Your task to perform on an android device: Open eBay Image 0: 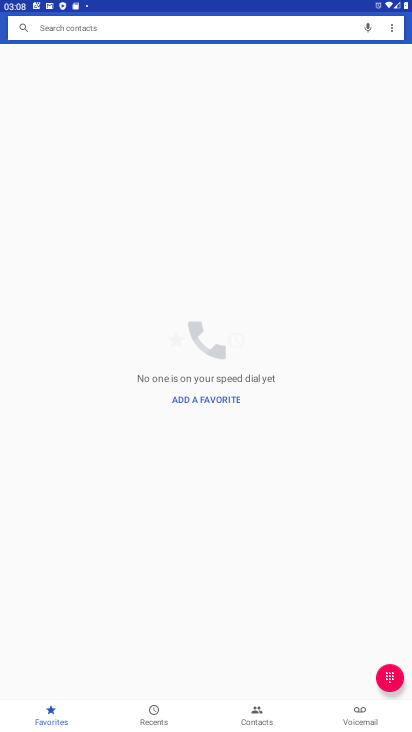
Step 0: press home button
Your task to perform on an android device: Open eBay Image 1: 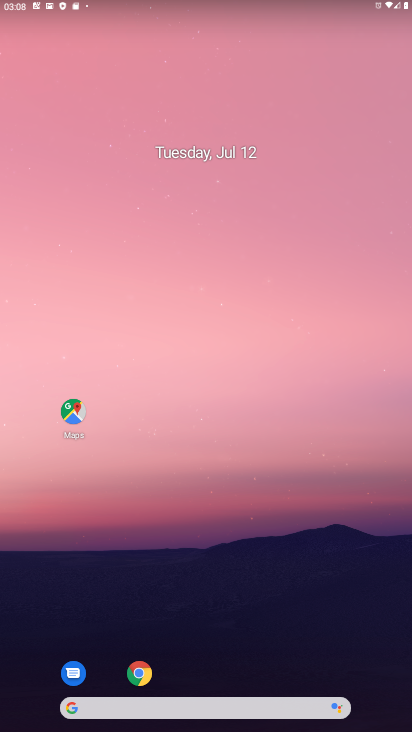
Step 1: click (223, 703)
Your task to perform on an android device: Open eBay Image 2: 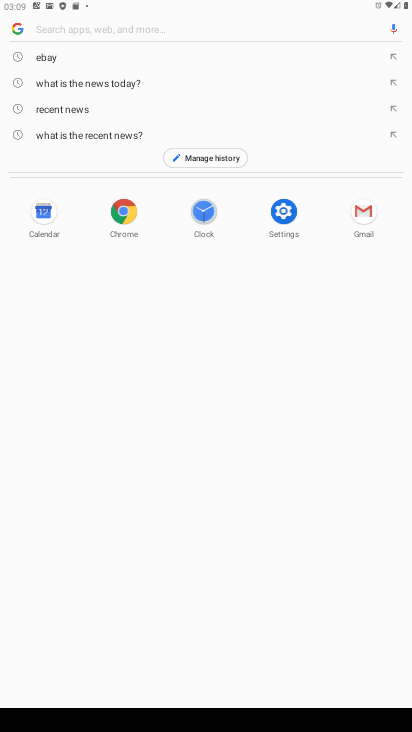
Step 2: click (53, 57)
Your task to perform on an android device: Open eBay Image 3: 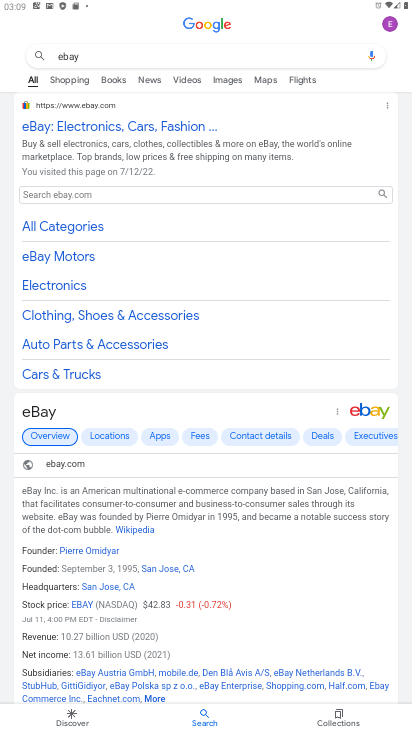
Step 3: click (56, 462)
Your task to perform on an android device: Open eBay Image 4: 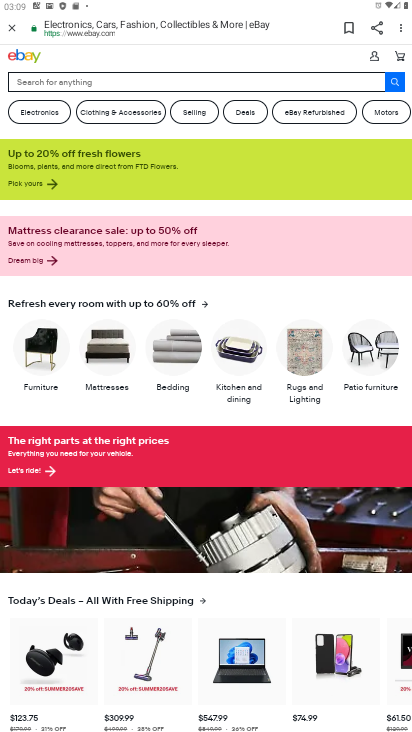
Step 4: task complete